Your task to perform on an android device: Open Youtube and go to "Your channel" Image 0: 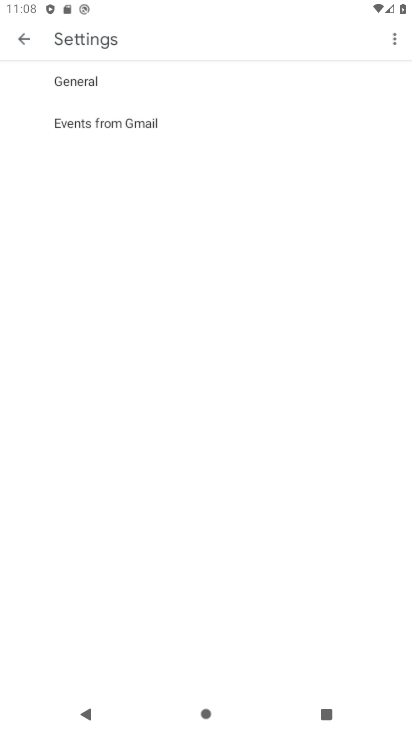
Step 0: drag from (371, 596) to (381, 213)
Your task to perform on an android device: Open Youtube and go to "Your channel" Image 1: 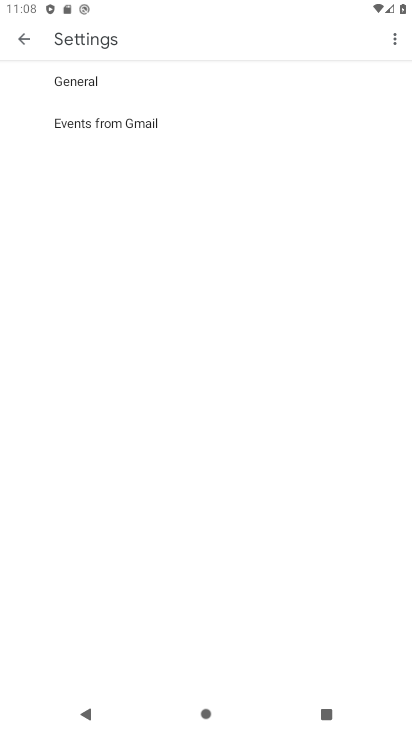
Step 1: press home button
Your task to perform on an android device: Open Youtube and go to "Your channel" Image 2: 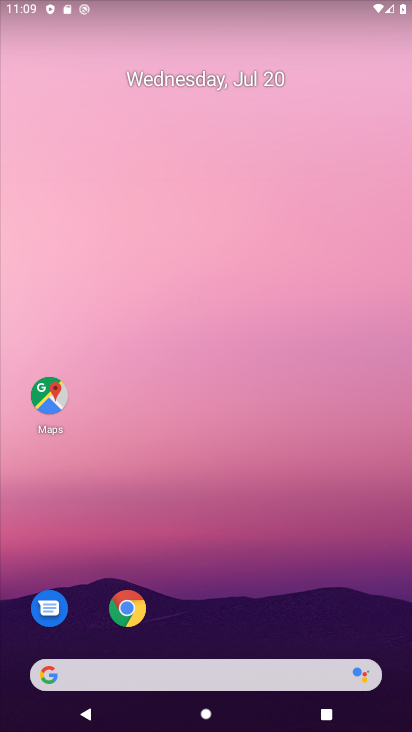
Step 2: drag from (363, 609) to (390, 67)
Your task to perform on an android device: Open Youtube and go to "Your channel" Image 3: 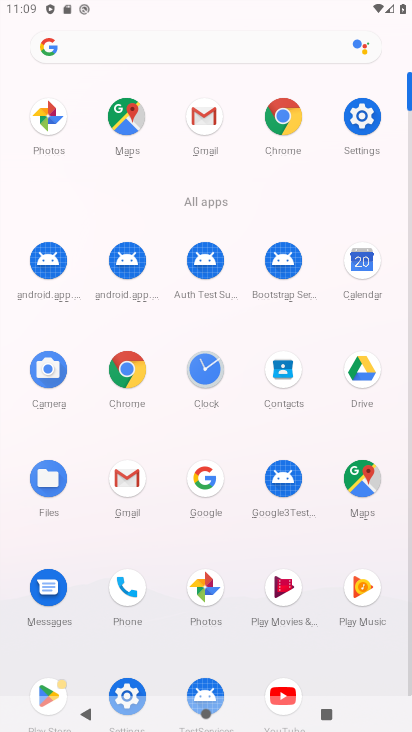
Step 3: drag from (372, 660) to (365, 424)
Your task to perform on an android device: Open Youtube and go to "Your channel" Image 4: 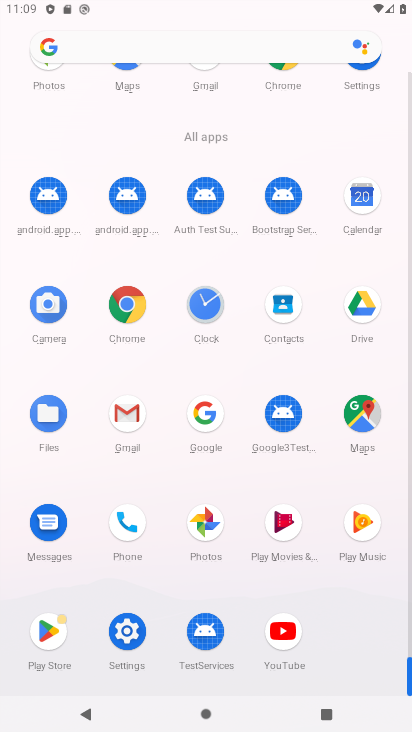
Step 4: click (277, 630)
Your task to perform on an android device: Open Youtube and go to "Your channel" Image 5: 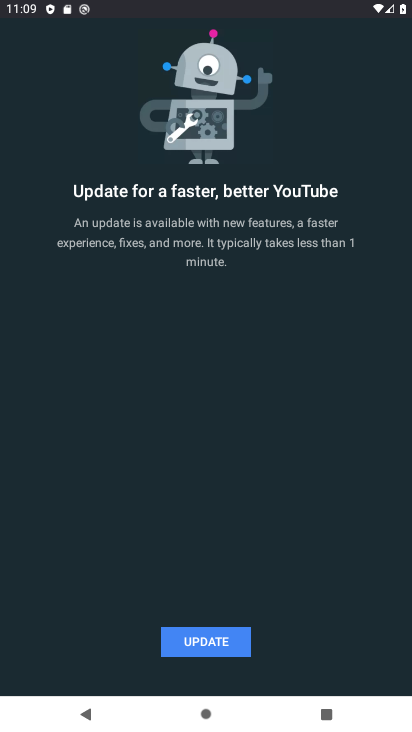
Step 5: click (207, 636)
Your task to perform on an android device: Open Youtube and go to "Your channel" Image 6: 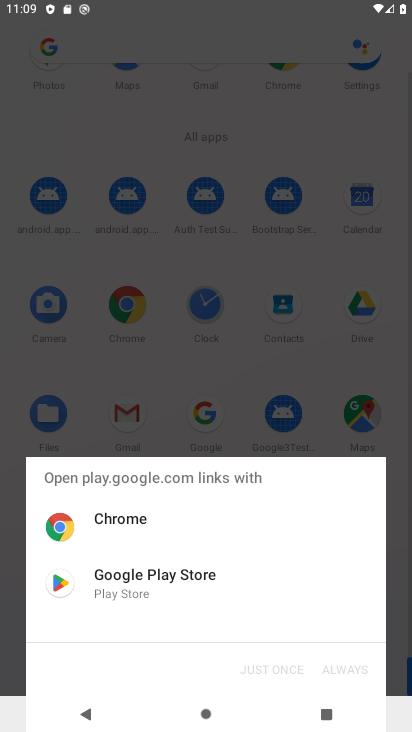
Step 6: click (166, 569)
Your task to perform on an android device: Open Youtube and go to "Your channel" Image 7: 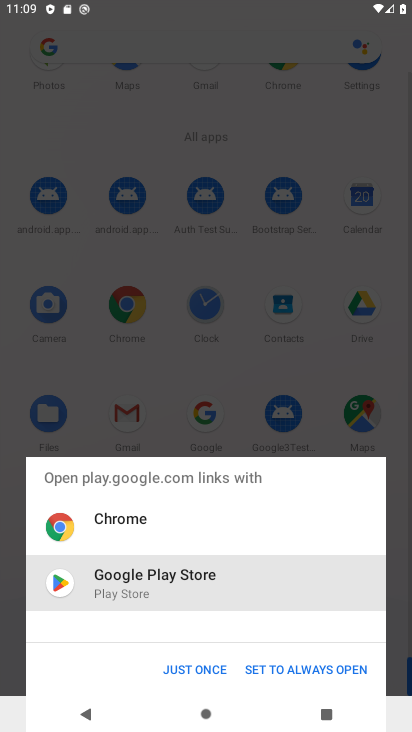
Step 7: click (193, 663)
Your task to perform on an android device: Open Youtube and go to "Your channel" Image 8: 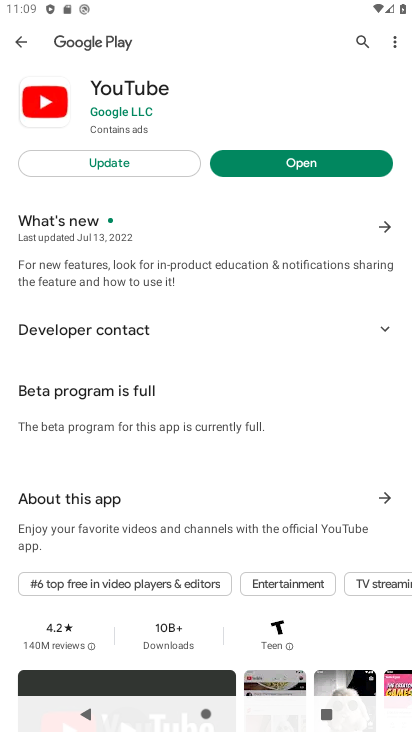
Step 8: click (130, 159)
Your task to perform on an android device: Open Youtube and go to "Your channel" Image 9: 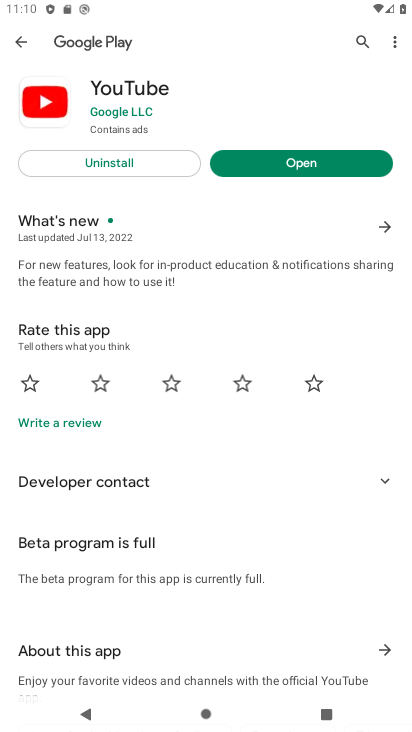
Step 9: click (294, 163)
Your task to perform on an android device: Open Youtube and go to "Your channel" Image 10: 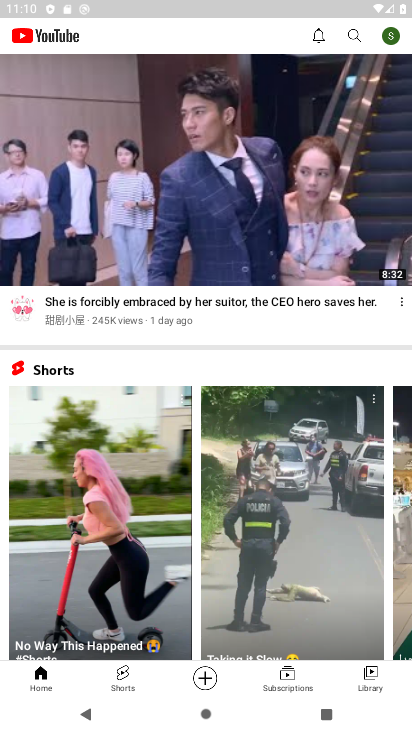
Step 10: click (392, 35)
Your task to perform on an android device: Open Youtube and go to "Your channel" Image 11: 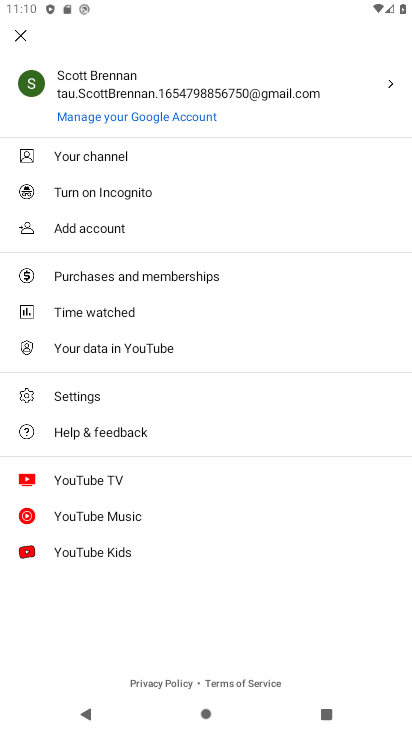
Step 11: click (172, 160)
Your task to perform on an android device: Open Youtube and go to "Your channel" Image 12: 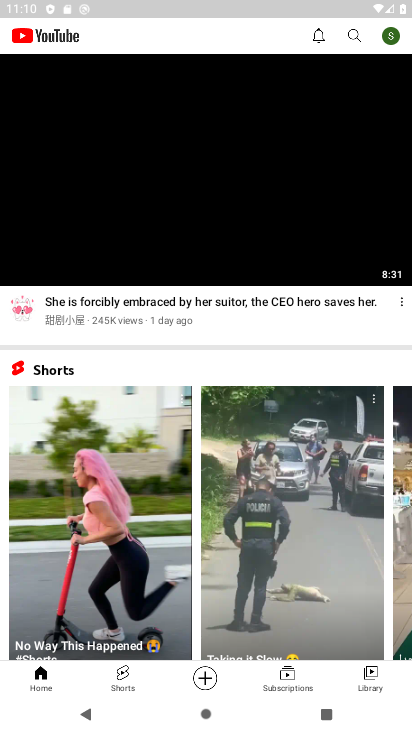
Step 12: task complete